Your task to perform on an android device: search for starred emails in the gmail app Image 0: 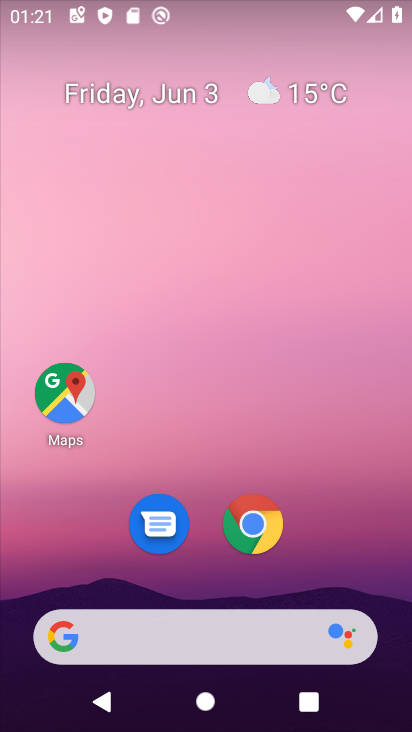
Step 0: drag from (334, 526) to (325, 16)
Your task to perform on an android device: search for starred emails in the gmail app Image 1: 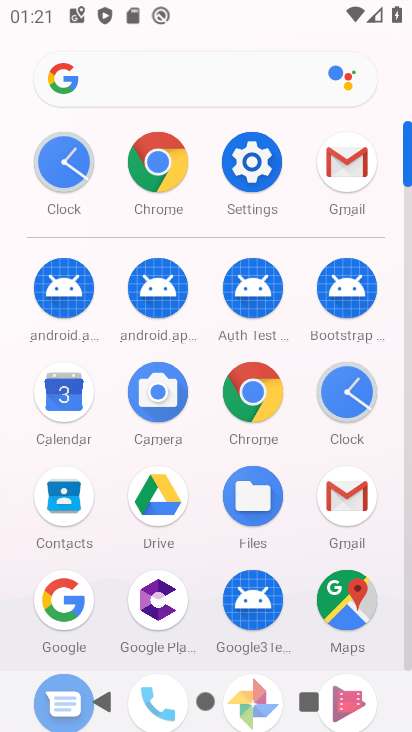
Step 1: click (348, 154)
Your task to perform on an android device: search for starred emails in the gmail app Image 2: 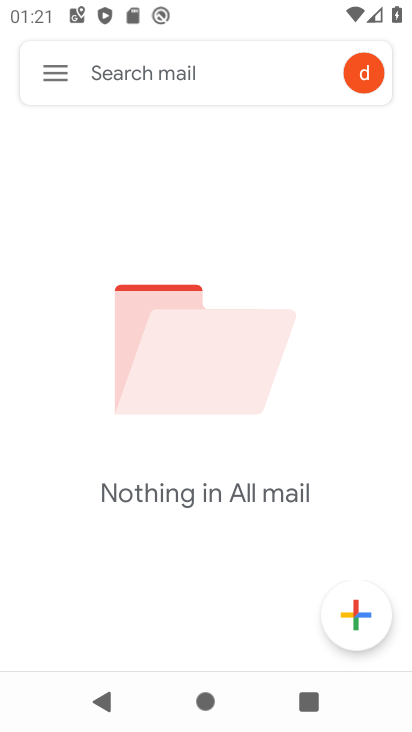
Step 2: click (50, 71)
Your task to perform on an android device: search for starred emails in the gmail app Image 3: 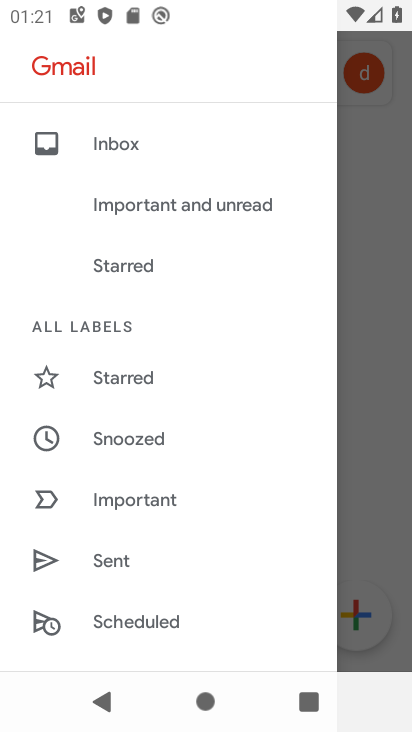
Step 3: click (188, 391)
Your task to perform on an android device: search for starred emails in the gmail app Image 4: 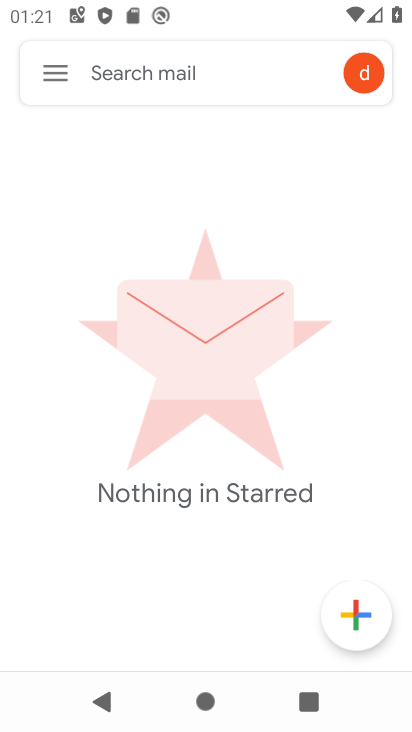
Step 4: task complete